Your task to perform on an android device: Go to Reddit.com Image 0: 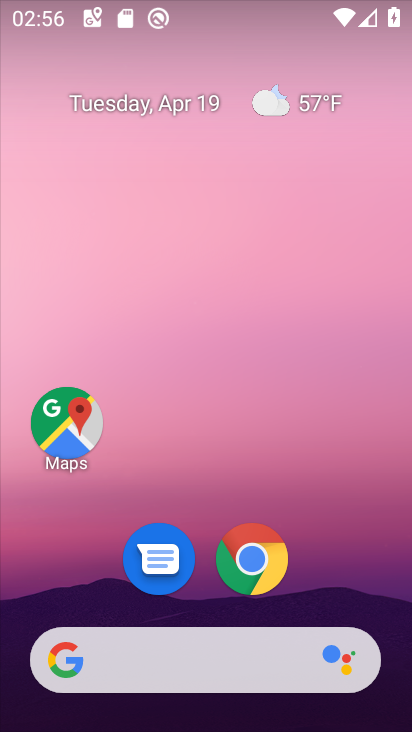
Step 0: click (255, 555)
Your task to perform on an android device: Go to Reddit.com Image 1: 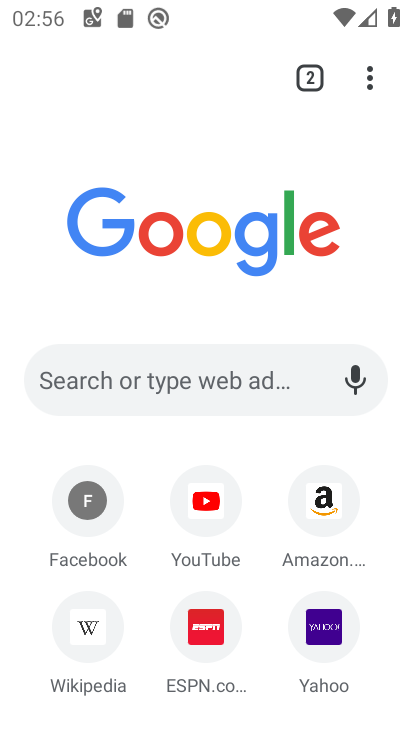
Step 1: click (190, 383)
Your task to perform on an android device: Go to Reddit.com Image 2: 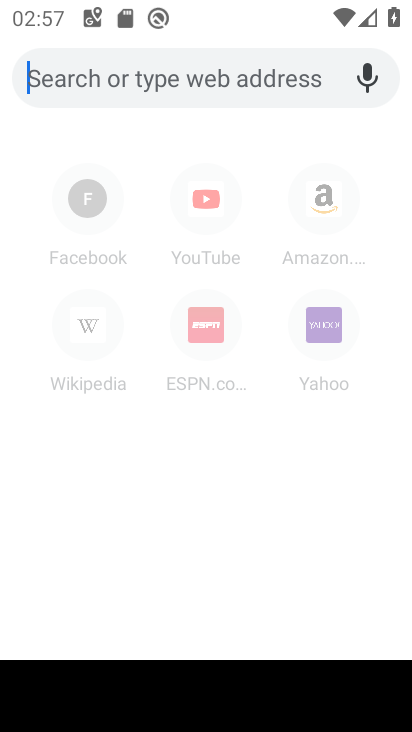
Step 2: type "reddit.com"
Your task to perform on an android device: Go to Reddit.com Image 3: 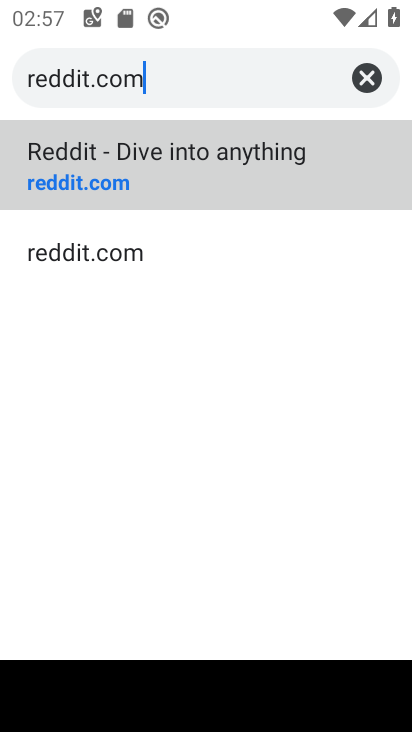
Step 3: drag from (109, 79) to (147, 169)
Your task to perform on an android device: Go to Reddit.com Image 4: 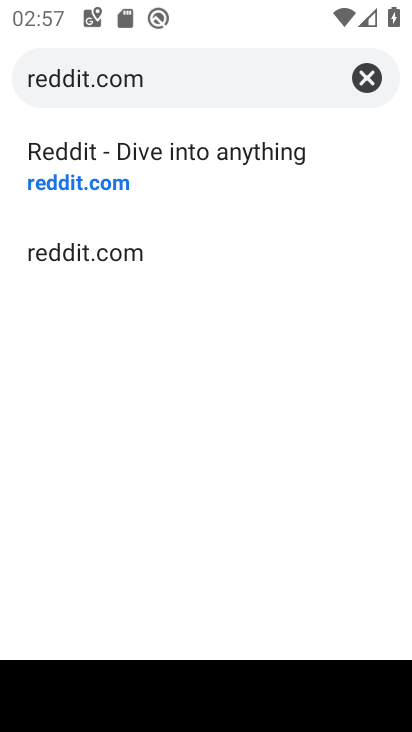
Step 4: click (136, 170)
Your task to perform on an android device: Go to Reddit.com Image 5: 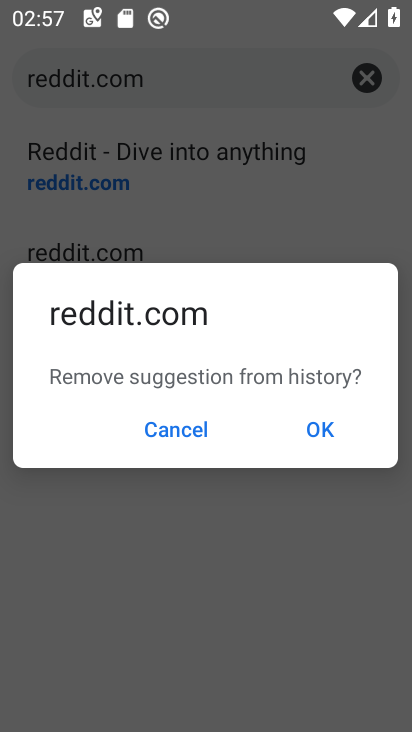
Step 5: task complete